Your task to perform on an android device: Go to Yahoo.com Image 0: 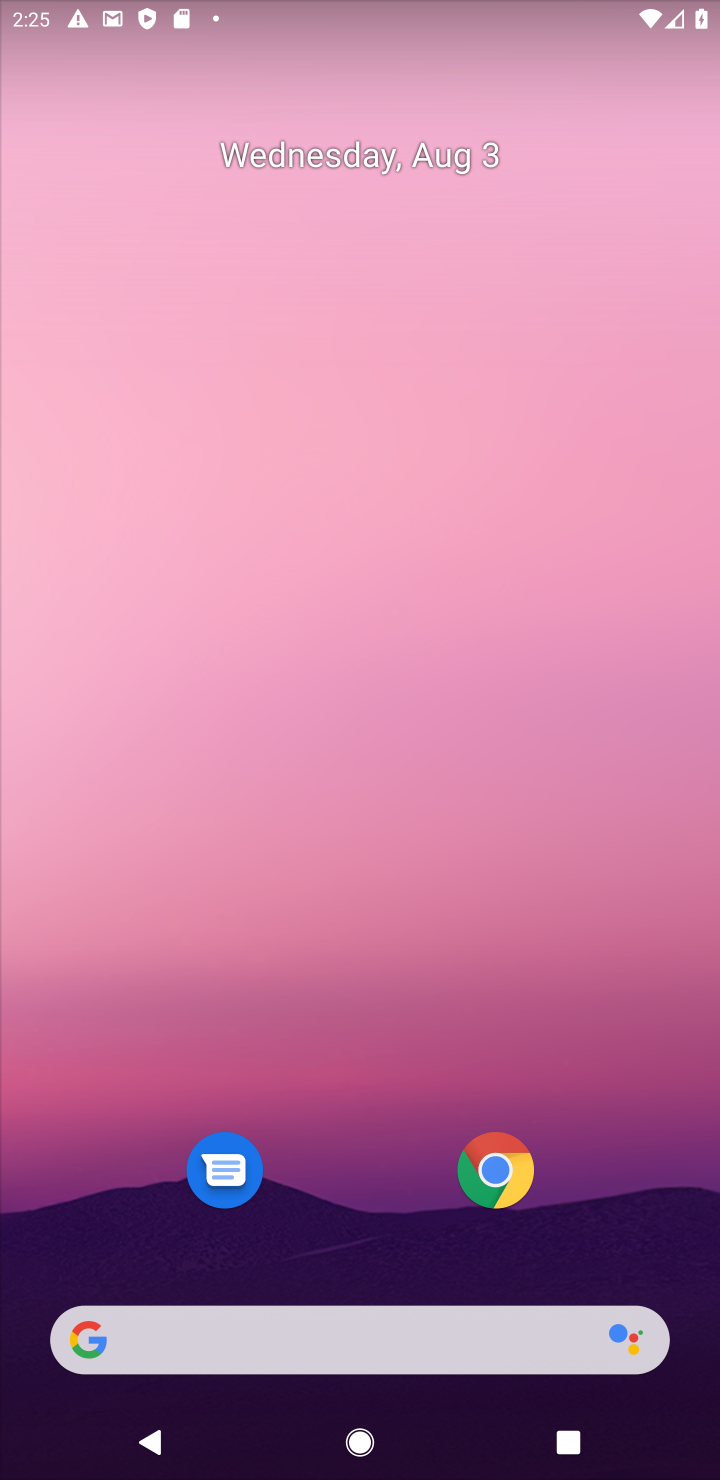
Step 0: click (519, 1169)
Your task to perform on an android device: Go to Yahoo.com Image 1: 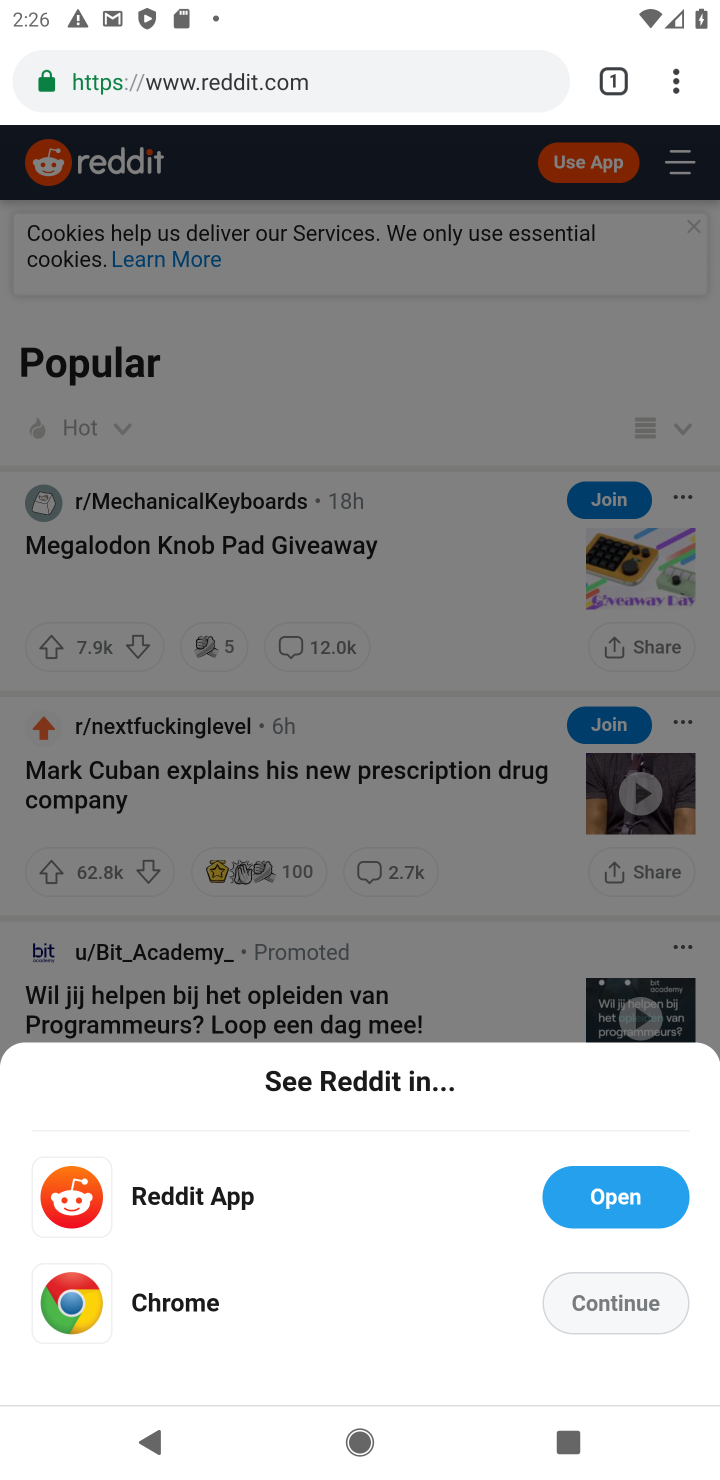
Step 1: click (411, 77)
Your task to perform on an android device: Go to Yahoo.com Image 2: 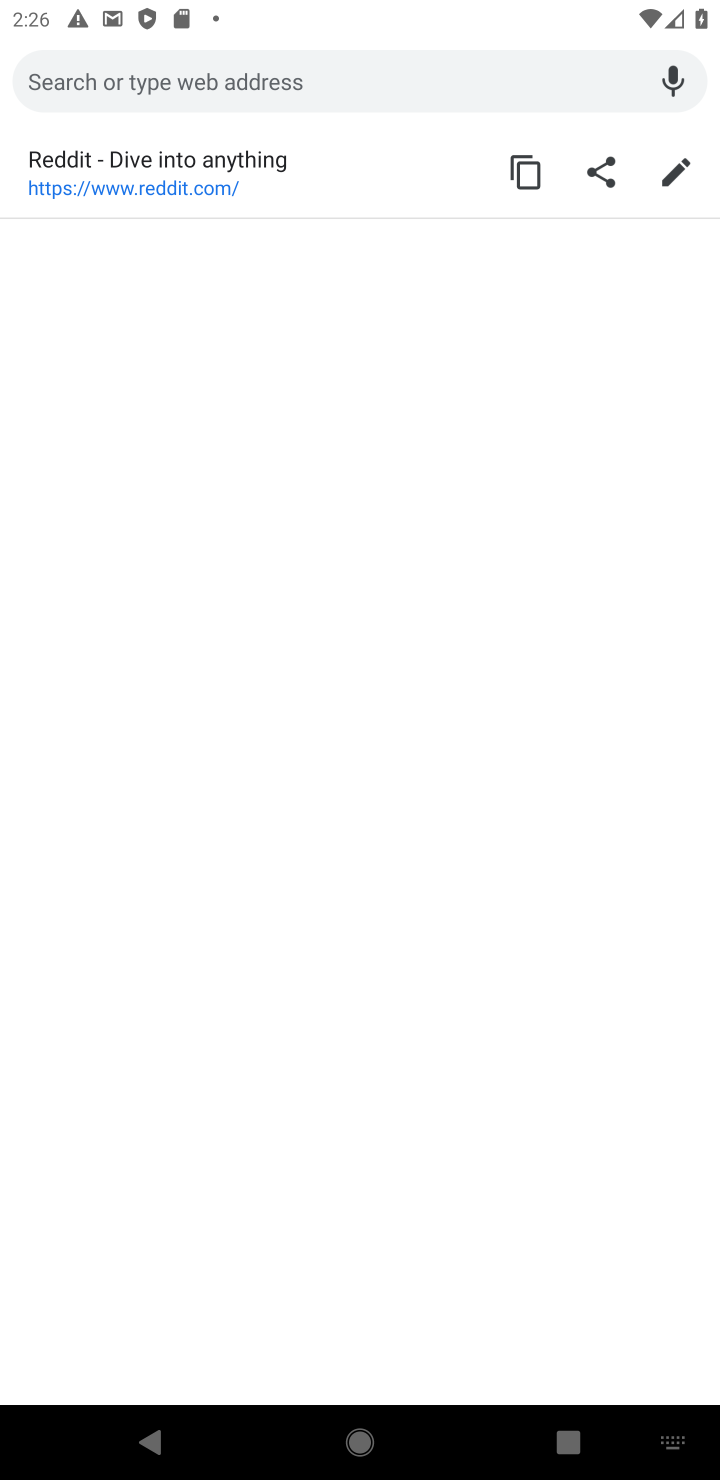
Step 2: type "yahoo.com"
Your task to perform on an android device: Go to Yahoo.com Image 3: 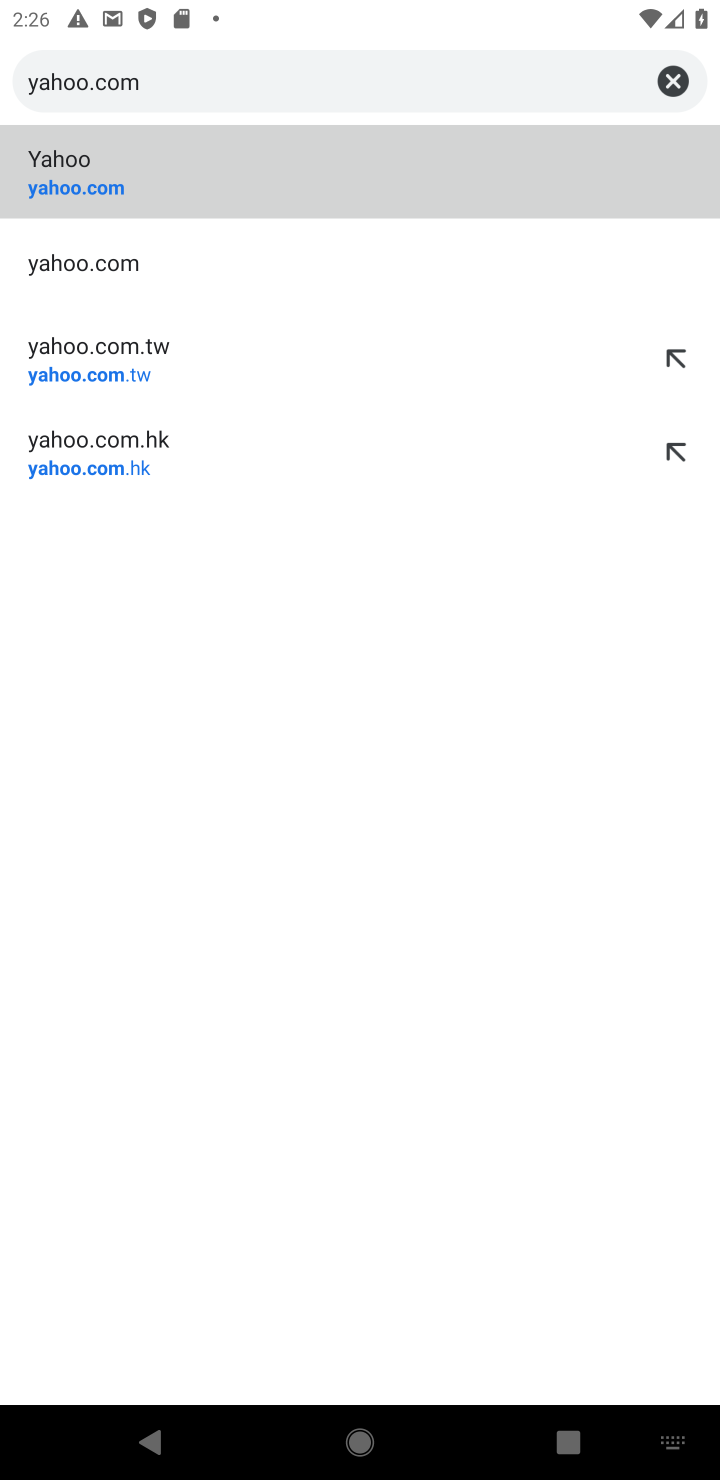
Step 3: click (274, 168)
Your task to perform on an android device: Go to Yahoo.com Image 4: 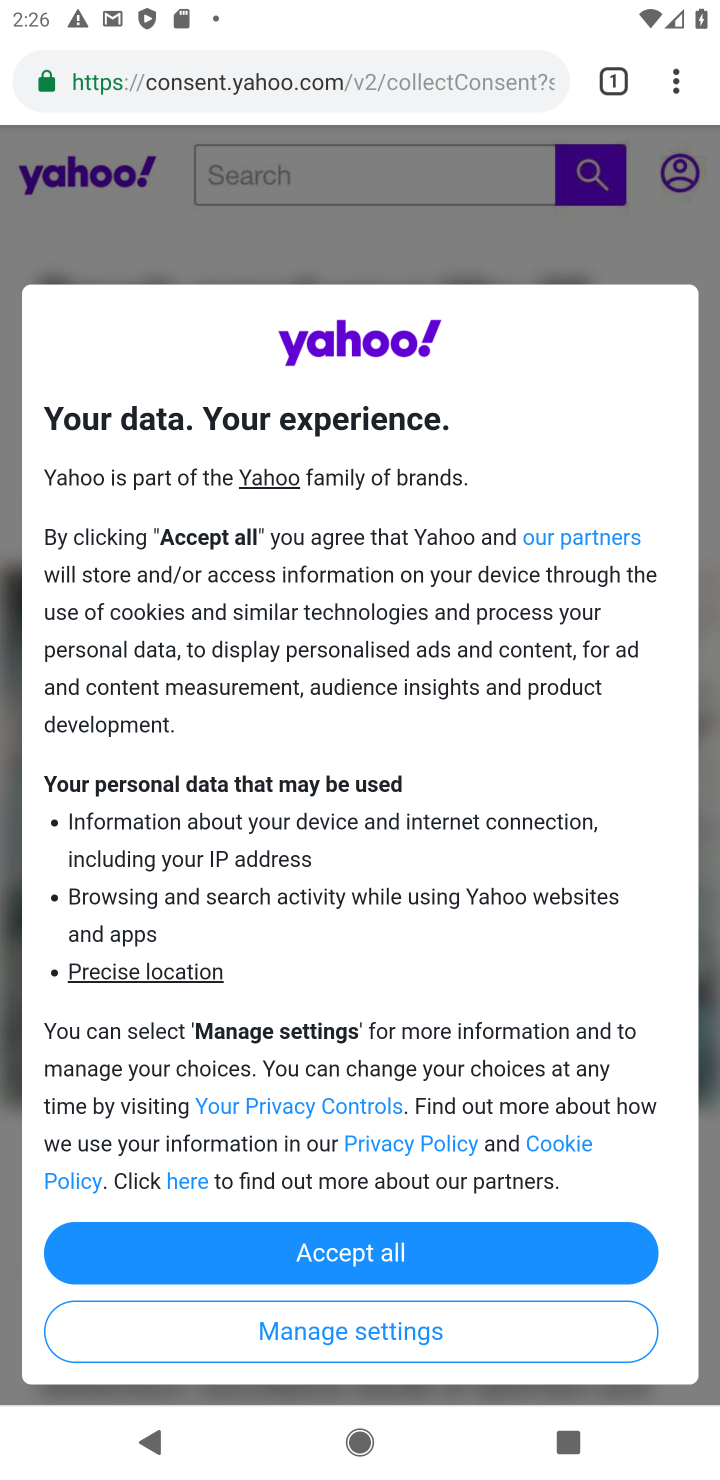
Step 4: task complete